Your task to perform on an android device: Open Google Chrome and open the bookmarks view Image 0: 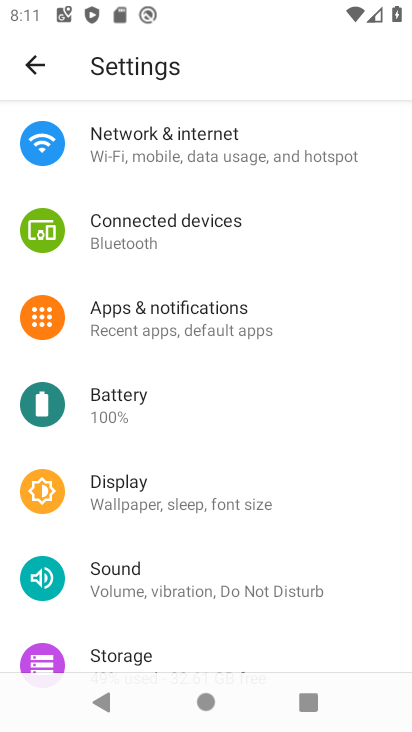
Step 0: press home button
Your task to perform on an android device: Open Google Chrome and open the bookmarks view Image 1: 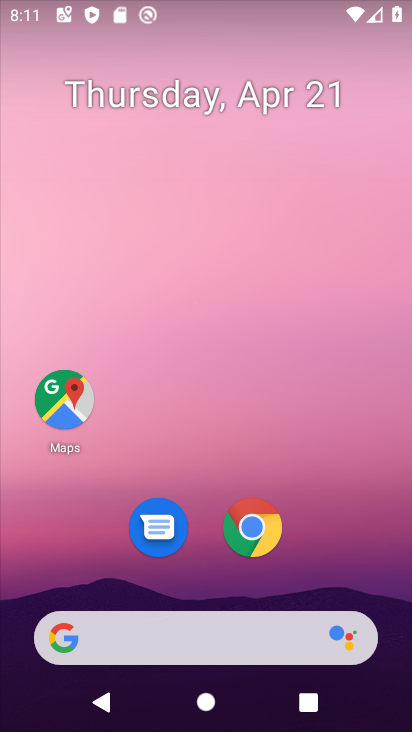
Step 1: drag from (281, 609) to (395, 191)
Your task to perform on an android device: Open Google Chrome and open the bookmarks view Image 2: 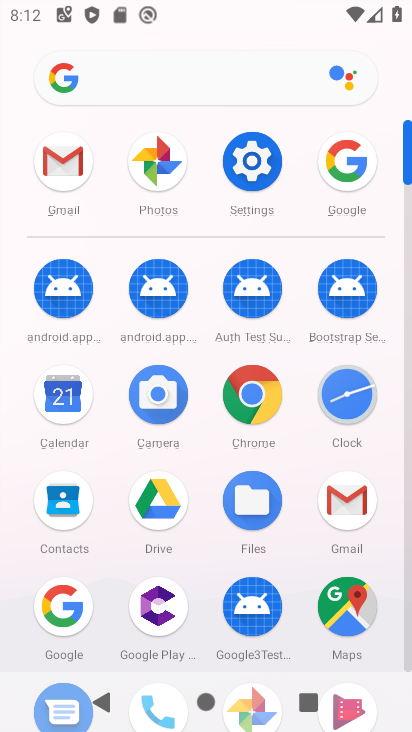
Step 2: click (251, 398)
Your task to perform on an android device: Open Google Chrome and open the bookmarks view Image 3: 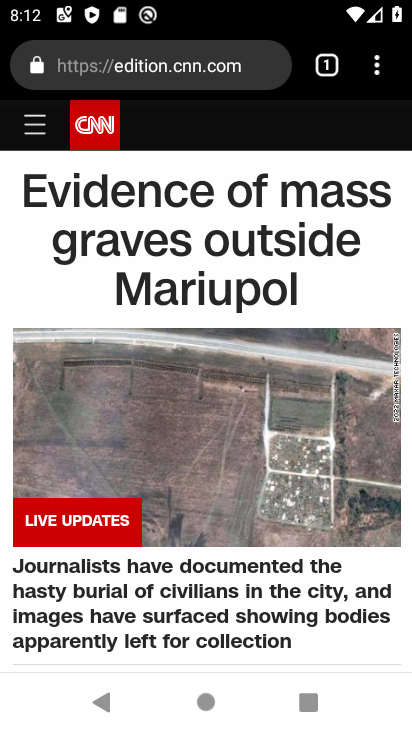
Step 3: click (392, 67)
Your task to perform on an android device: Open Google Chrome and open the bookmarks view Image 4: 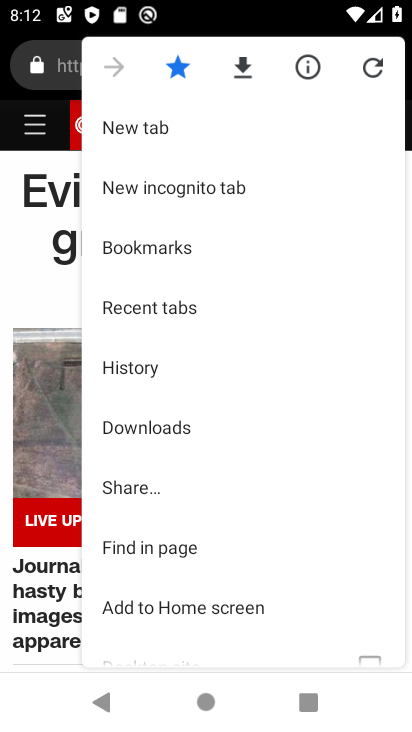
Step 4: click (188, 262)
Your task to perform on an android device: Open Google Chrome and open the bookmarks view Image 5: 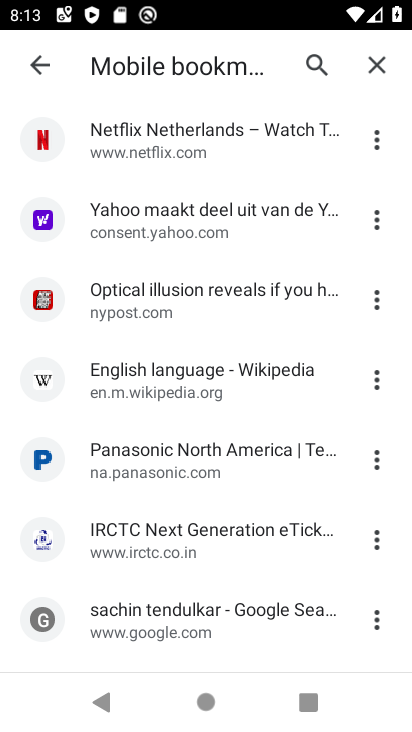
Step 5: task complete